Your task to perform on an android device: Go to Yahoo.com Image 0: 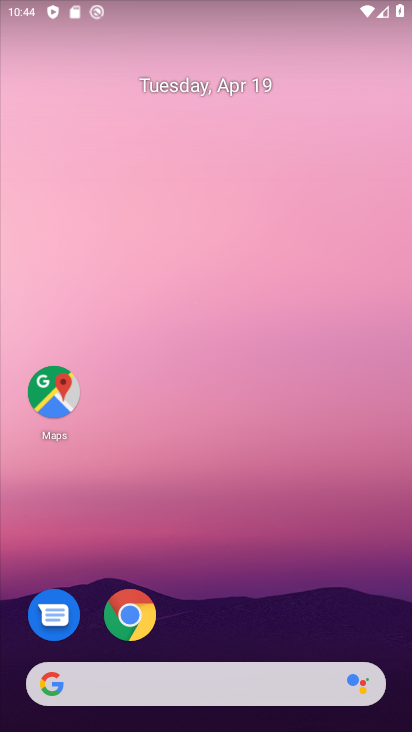
Step 0: click (137, 613)
Your task to perform on an android device: Go to Yahoo.com Image 1: 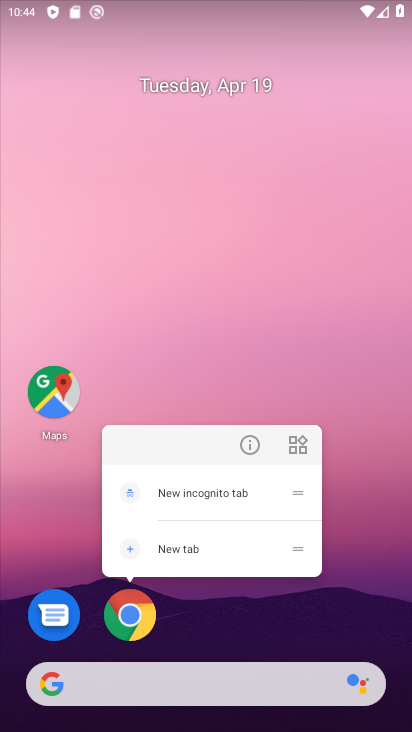
Step 1: click (129, 617)
Your task to perform on an android device: Go to Yahoo.com Image 2: 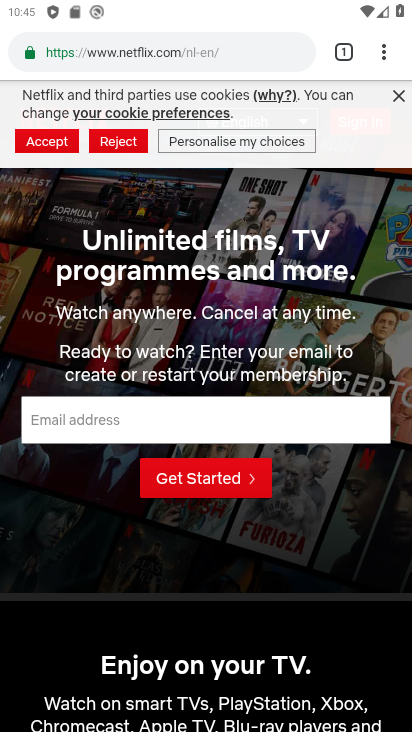
Step 2: press back button
Your task to perform on an android device: Go to Yahoo.com Image 3: 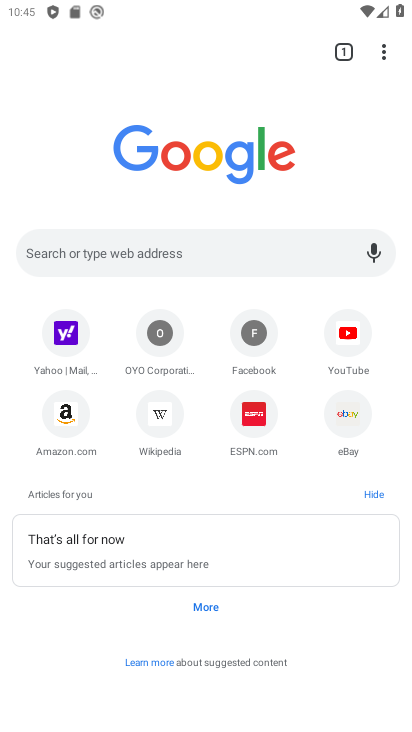
Step 3: click (61, 339)
Your task to perform on an android device: Go to Yahoo.com Image 4: 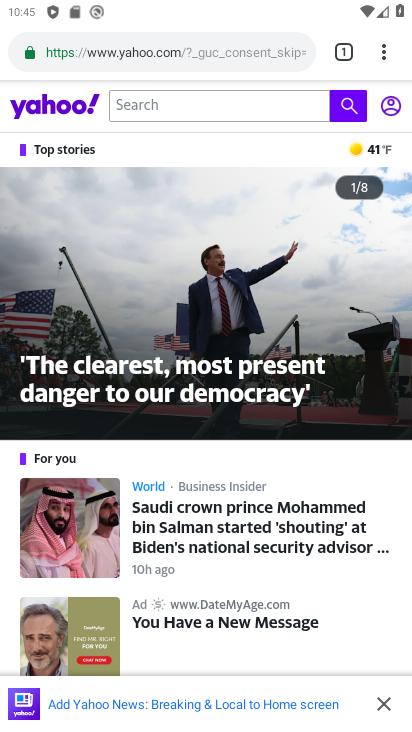
Step 4: task complete